Your task to perform on an android device: clear history in the chrome app Image 0: 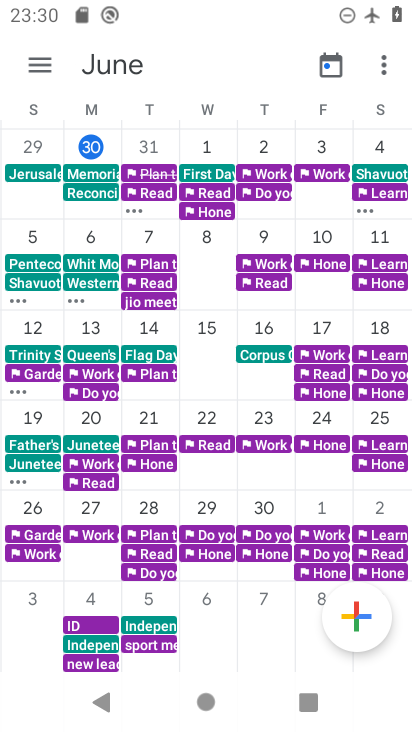
Step 0: press home button
Your task to perform on an android device: clear history in the chrome app Image 1: 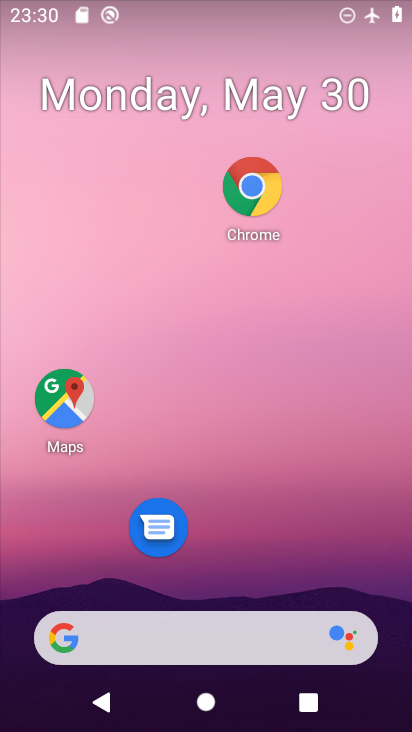
Step 1: click (256, 177)
Your task to perform on an android device: clear history in the chrome app Image 2: 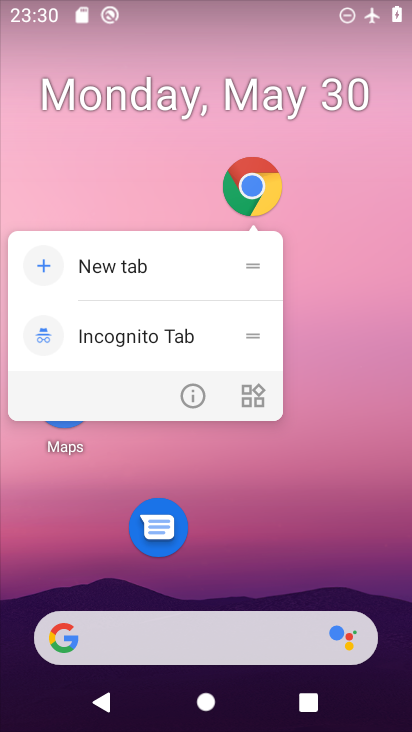
Step 2: click (256, 176)
Your task to perform on an android device: clear history in the chrome app Image 3: 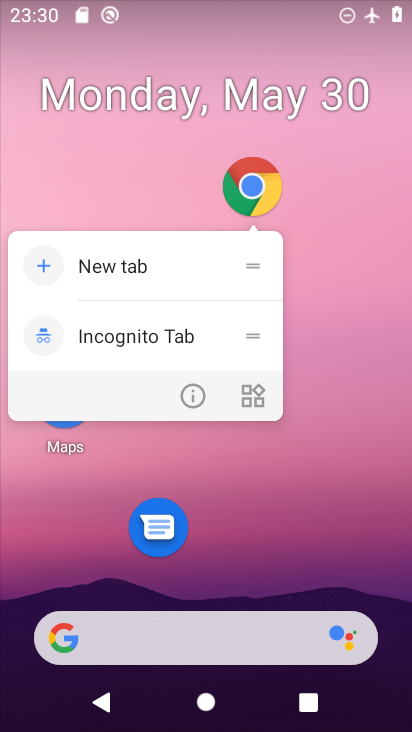
Step 3: click (256, 177)
Your task to perform on an android device: clear history in the chrome app Image 4: 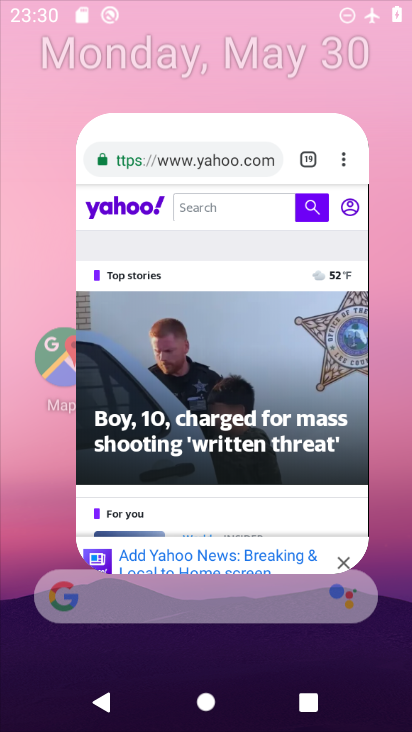
Step 4: click (256, 177)
Your task to perform on an android device: clear history in the chrome app Image 5: 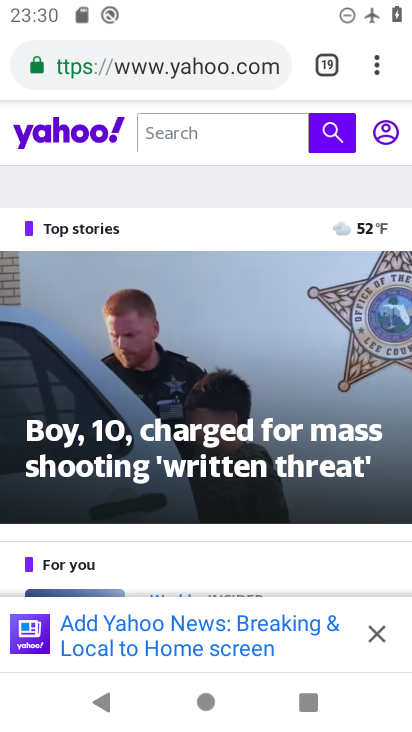
Step 5: click (374, 66)
Your task to perform on an android device: clear history in the chrome app Image 6: 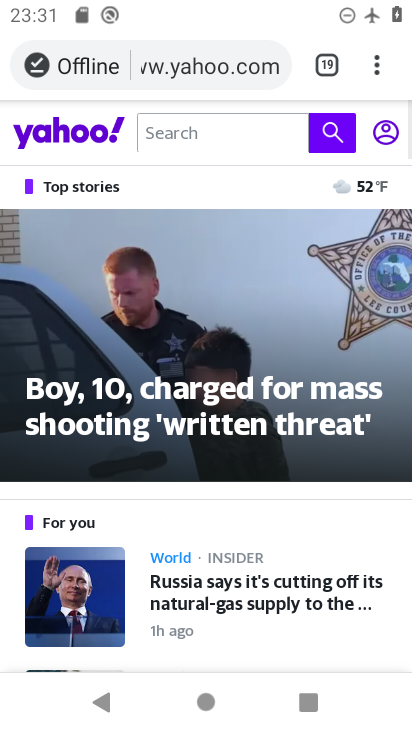
Step 6: click (374, 66)
Your task to perform on an android device: clear history in the chrome app Image 7: 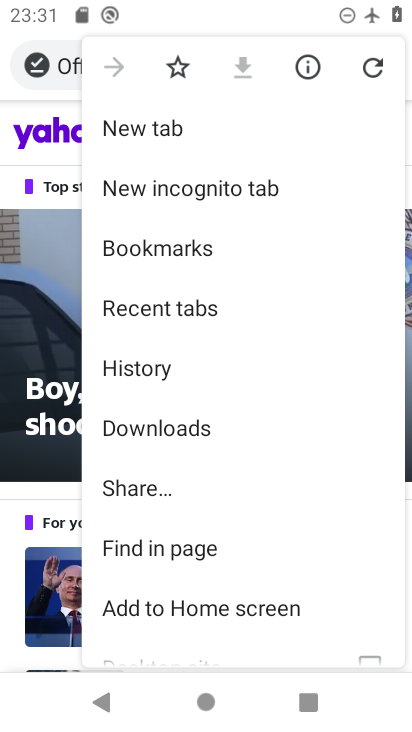
Step 7: drag from (233, 530) to (224, 243)
Your task to perform on an android device: clear history in the chrome app Image 8: 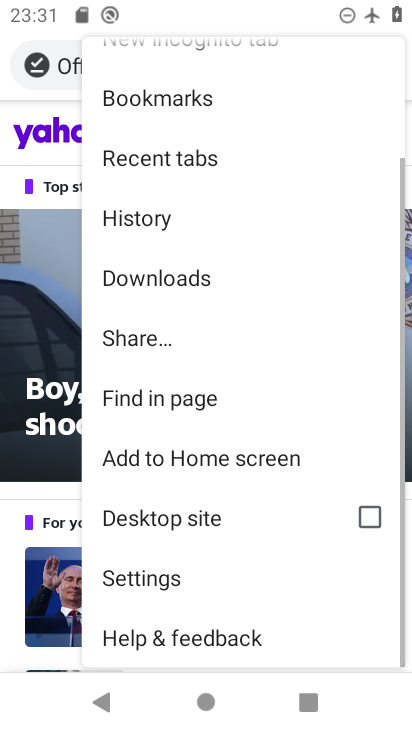
Step 8: click (170, 579)
Your task to perform on an android device: clear history in the chrome app Image 9: 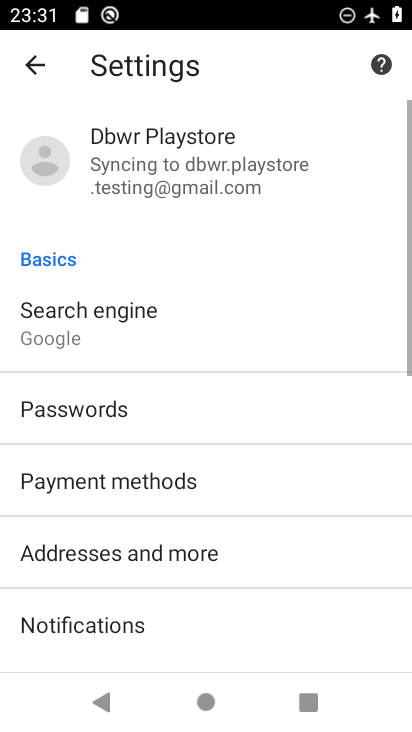
Step 9: drag from (187, 462) to (215, 276)
Your task to perform on an android device: clear history in the chrome app Image 10: 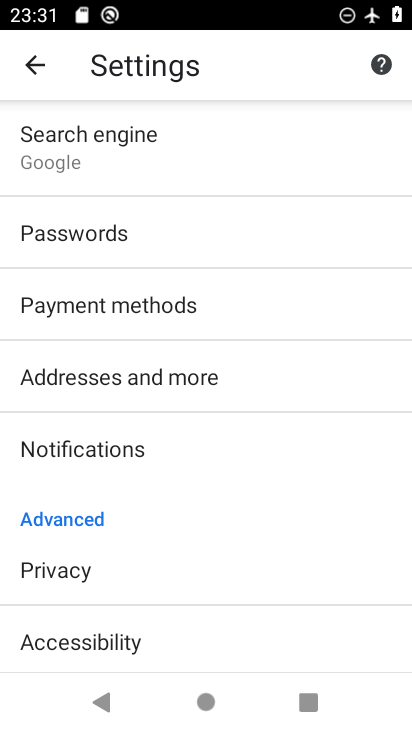
Step 10: drag from (186, 547) to (217, 224)
Your task to perform on an android device: clear history in the chrome app Image 11: 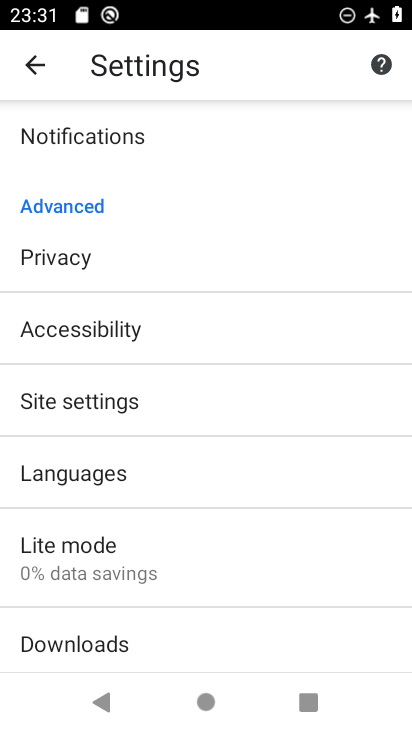
Step 11: drag from (131, 575) to (167, 309)
Your task to perform on an android device: clear history in the chrome app Image 12: 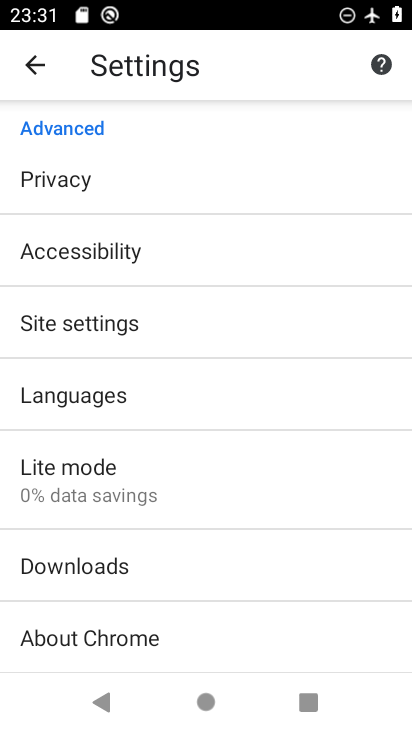
Step 12: drag from (127, 557) to (160, 346)
Your task to perform on an android device: clear history in the chrome app Image 13: 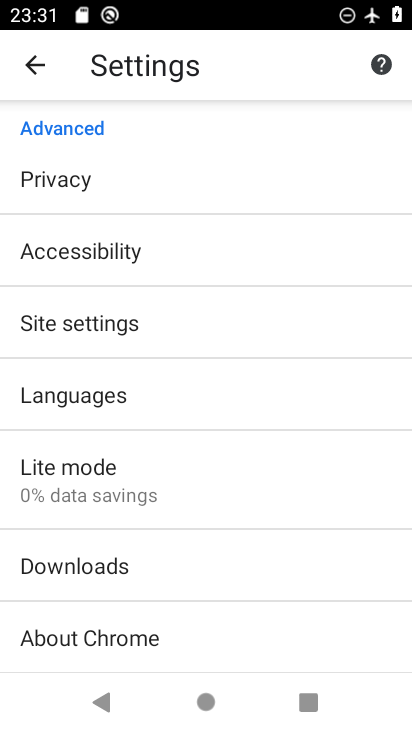
Step 13: drag from (184, 598) to (175, 366)
Your task to perform on an android device: clear history in the chrome app Image 14: 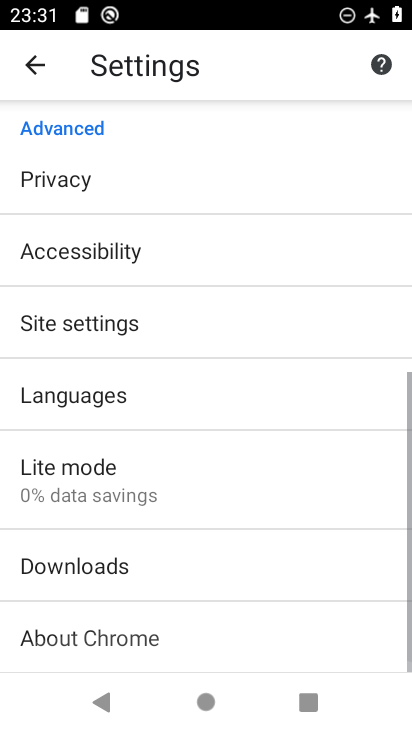
Step 14: drag from (189, 325) to (198, 439)
Your task to perform on an android device: clear history in the chrome app Image 15: 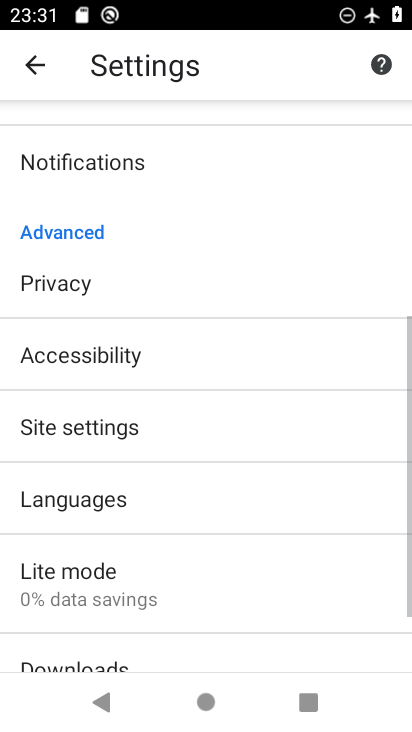
Step 15: click (35, 59)
Your task to perform on an android device: clear history in the chrome app Image 16: 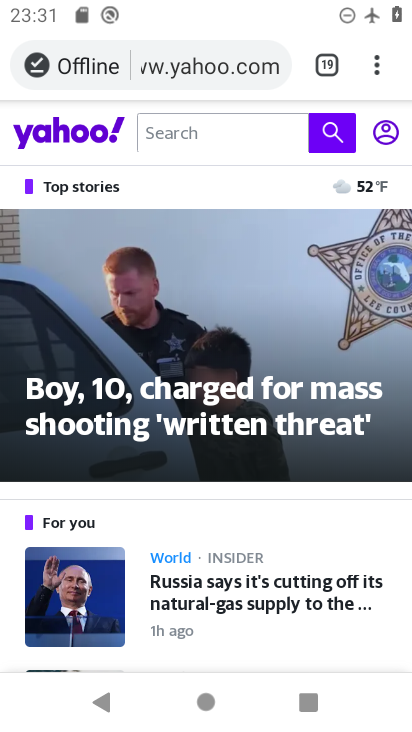
Step 16: click (385, 49)
Your task to perform on an android device: clear history in the chrome app Image 17: 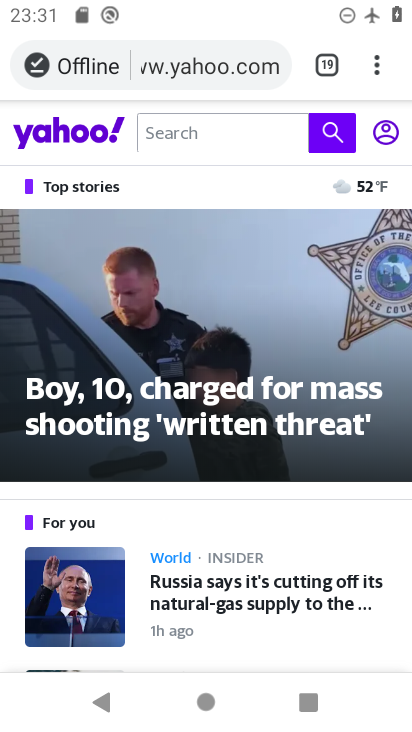
Step 17: click (384, 65)
Your task to perform on an android device: clear history in the chrome app Image 18: 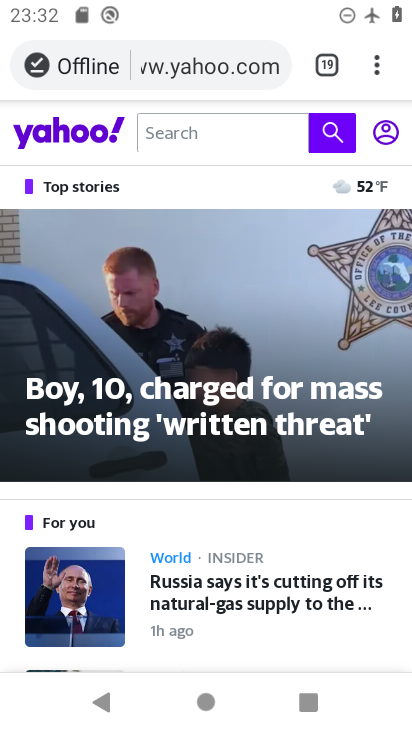
Step 18: click (382, 63)
Your task to perform on an android device: clear history in the chrome app Image 19: 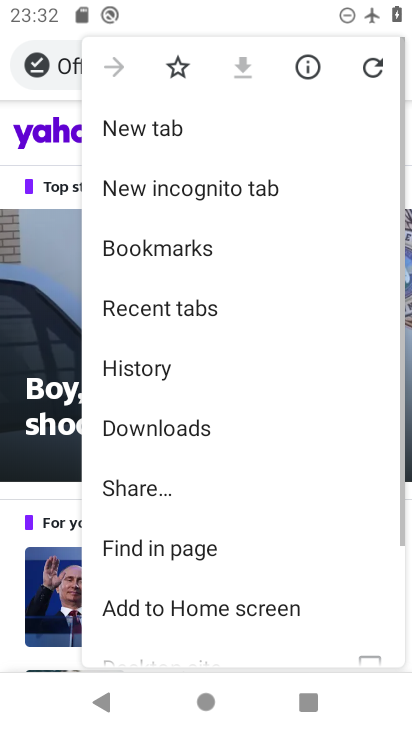
Step 19: click (150, 379)
Your task to perform on an android device: clear history in the chrome app Image 20: 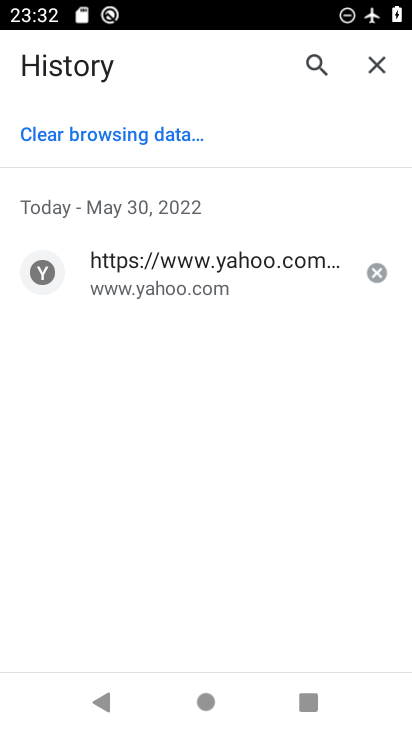
Step 20: click (109, 139)
Your task to perform on an android device: clear history in the chrome app Image 21: 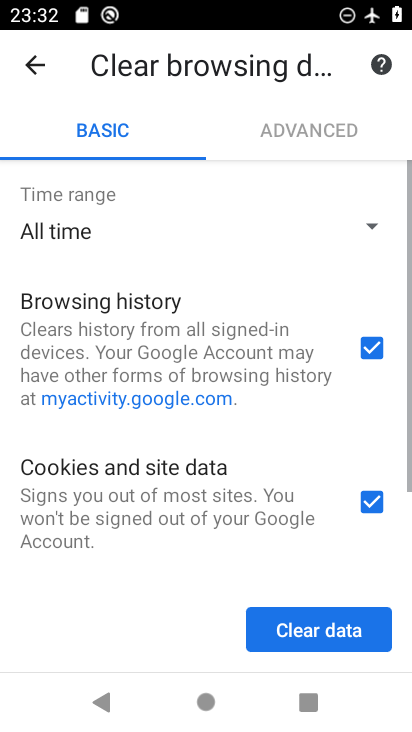
Step 21: click (310, 640)
Your task to perform on an android device: clear history in the chrome app Image 22: 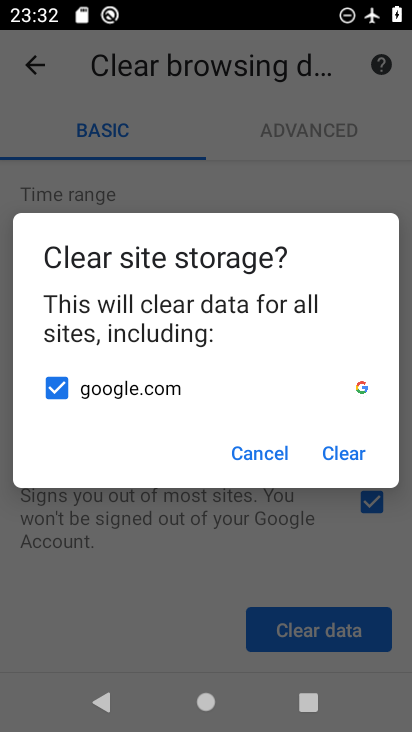
Step 22: click (325, 446)
Your task to perform on an android device: clear history in the chrome app Image 23: 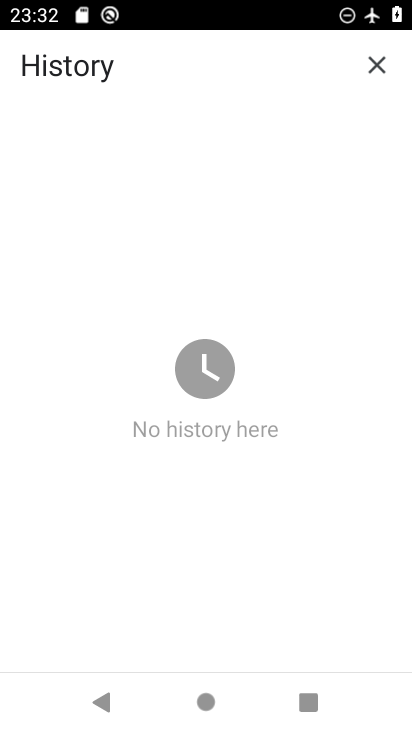
Step 23: task complete